Your task to perform on an android device: Open Chrome and go to the settings page Image 0: 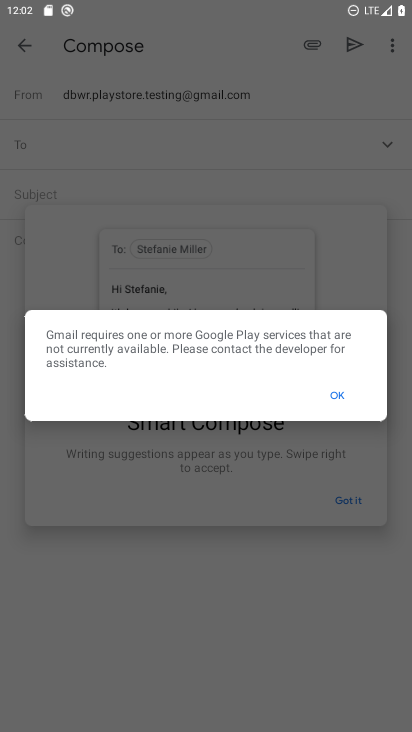
Step 0: press home button
Your task to perform on an android device: Open Chrome and go to the settings page Image 1: 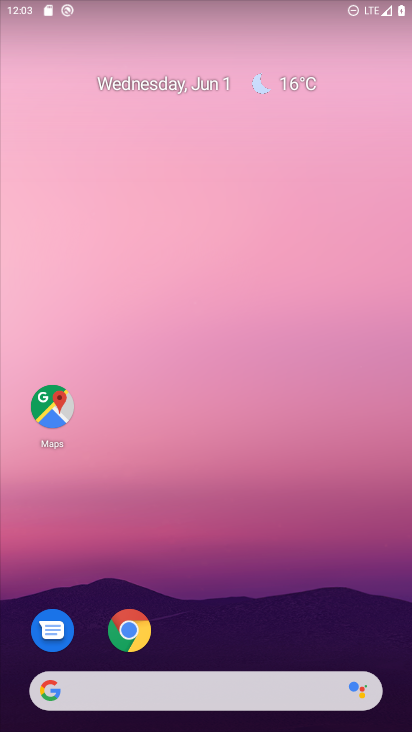
Step 1: drag from (276, 490) to (297, 141)
Your task to perform on an android device: Open Chrome and go to the settings page Image 2: 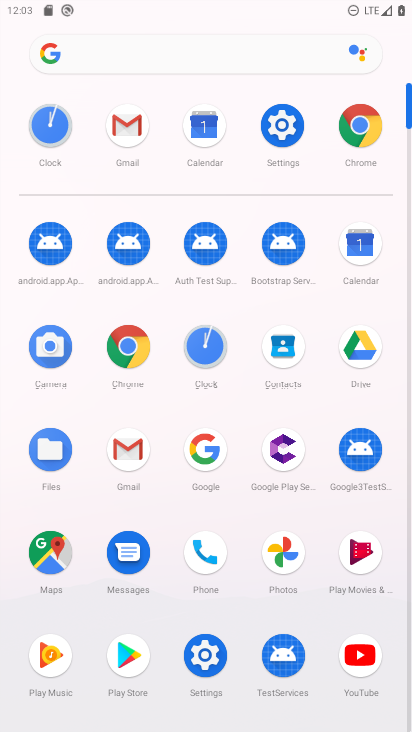
Step 2: click (366, 126)
Your task to perform on an android device: Open Chrome and go to the settings page Image 3: 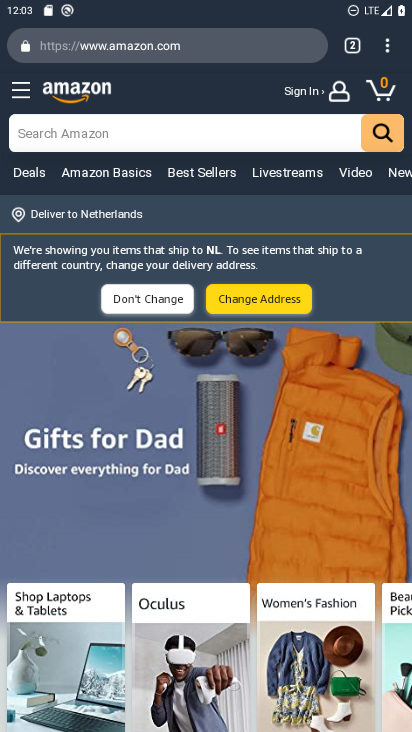
Step 3: task complete